Your task to perform on an android device: toggle notification dots Image 0: 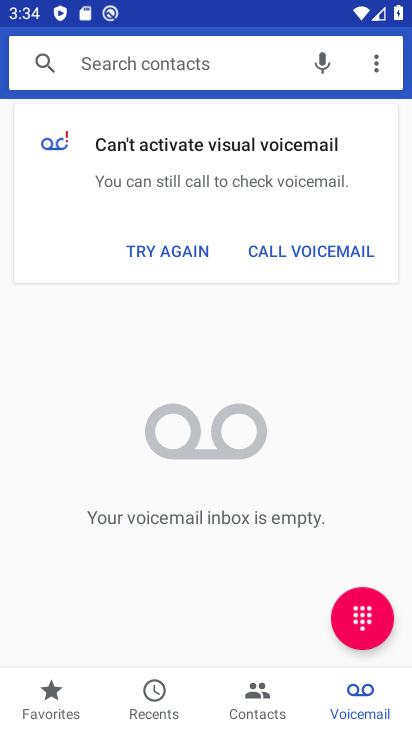
Step 0: press home button
Your task to perform on an android device: toggle notification dots Image 1: 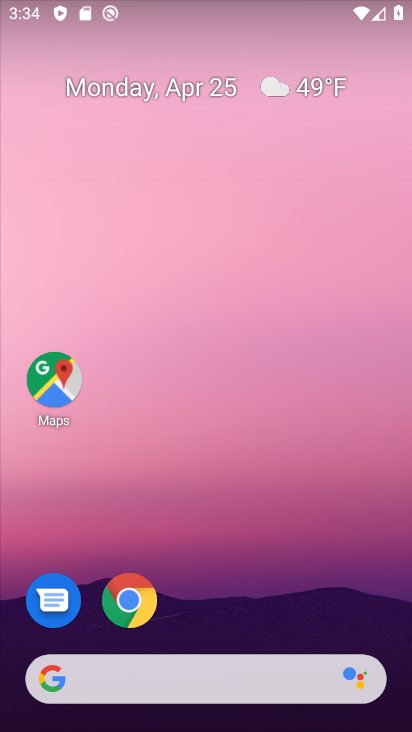
Step 1: drag from (301, 578) to (330, 26)
Your task to perform on an android device: toggle notification dots Image 2: 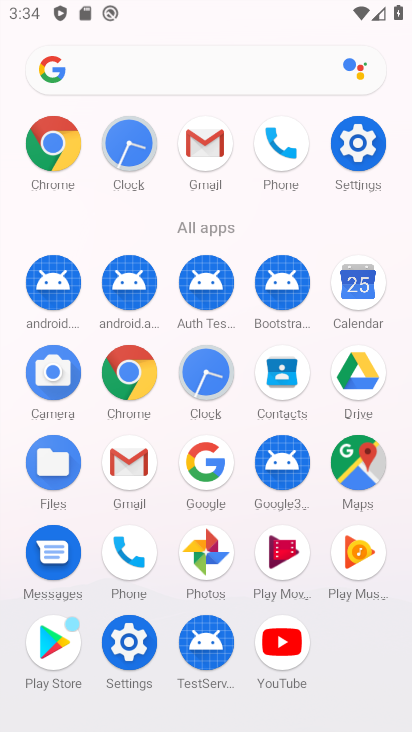
Step 2: click (360, 137)
Your task to perform on an android device: toggle notification dots Image 3: 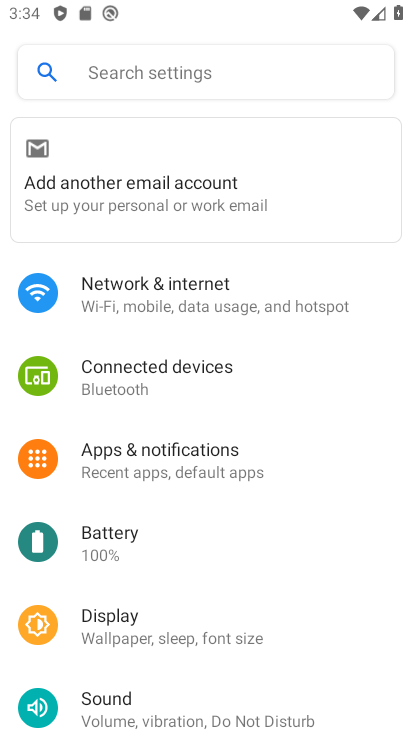
Step 3: click (231, 457)
Your task to perform on an android device: toggle notification dots Image 4: 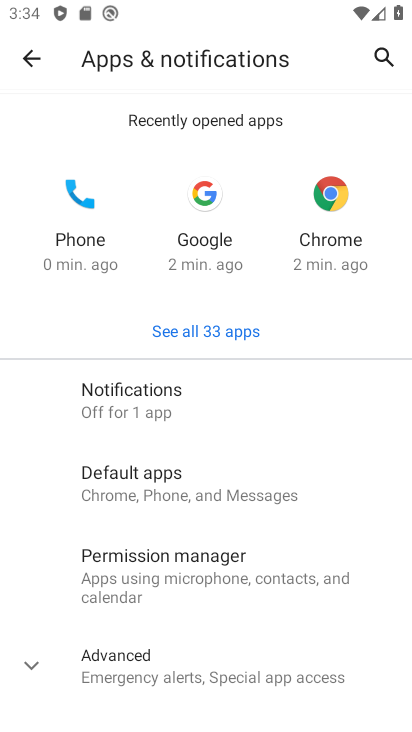
Step 4: click (213, 398)
Your task to perform on an android device: toggle notification dots Image 5: 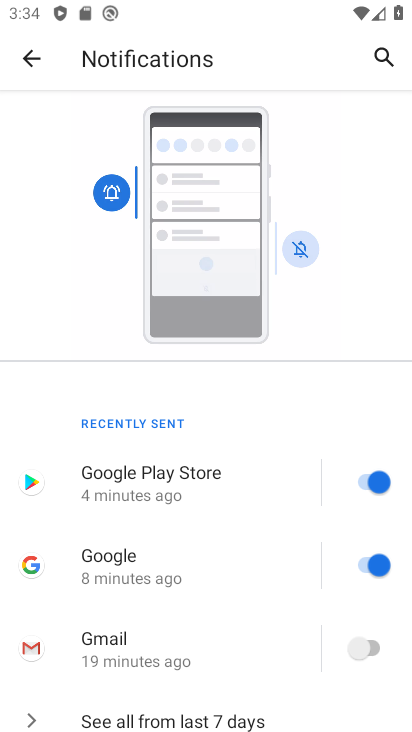
Step 5: drag from (169, 636) to (230, 148)
Your task to perform on an android device: toggle notification dots Image 6: 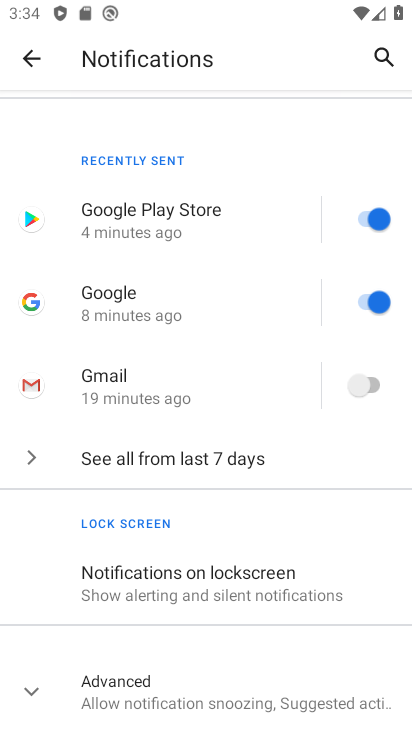
Step 6: click (28, 685)
Your task to perform on an android device: toggle notification dots Image 7: 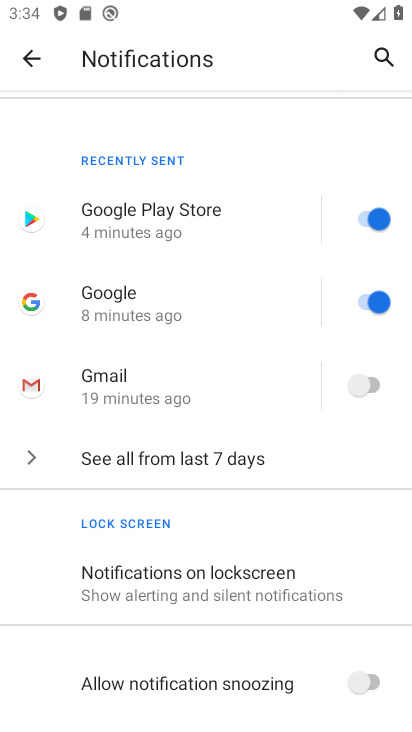
Step 7: drag from (200, 620) to (210, 226)
Your task to perform on an android device: toggle notification dots Image 8: 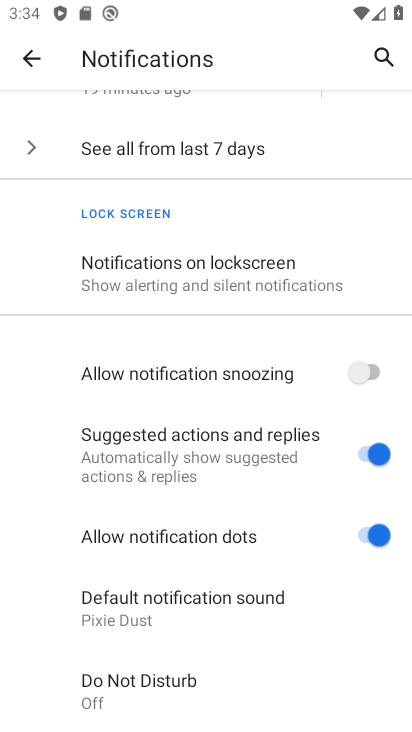
Step 8: click (311, 535)
Your task to perform on an android device: toggle notification dots Image 9: 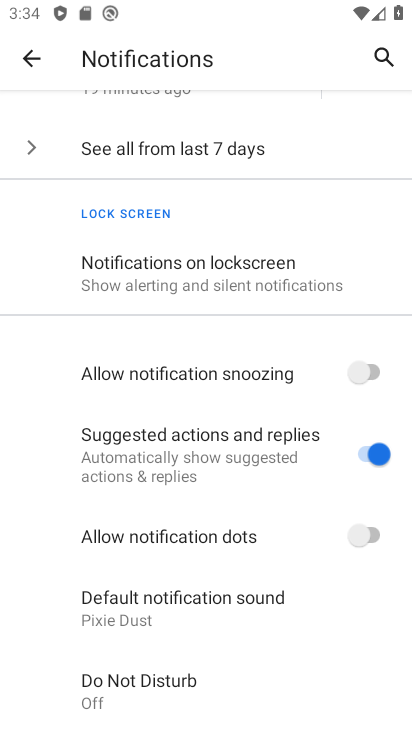
Step 9: task complete